Your task to perform on an android device: Go to Amazon Image 0: 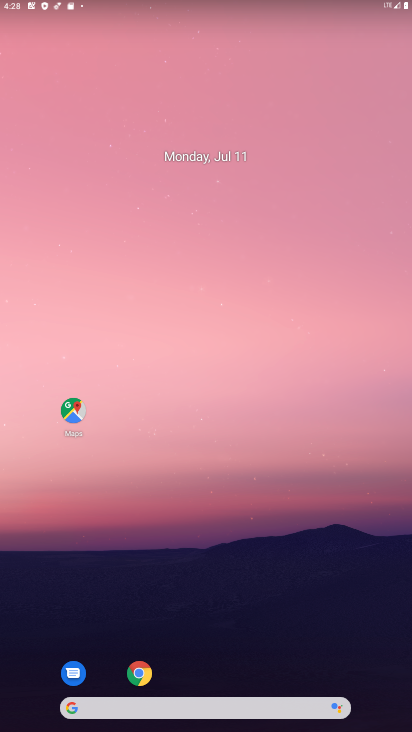
Step 0: drag from (327, 669) to (294, 104)
Your task to perform on an android device: Go to Amazon Image 1: 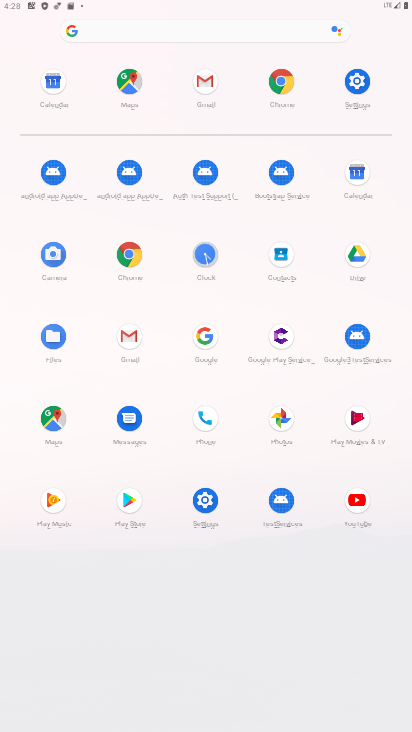
Step 1: click (130, 251)
Your task to perform on an android device: Go to Amazon Image 2: 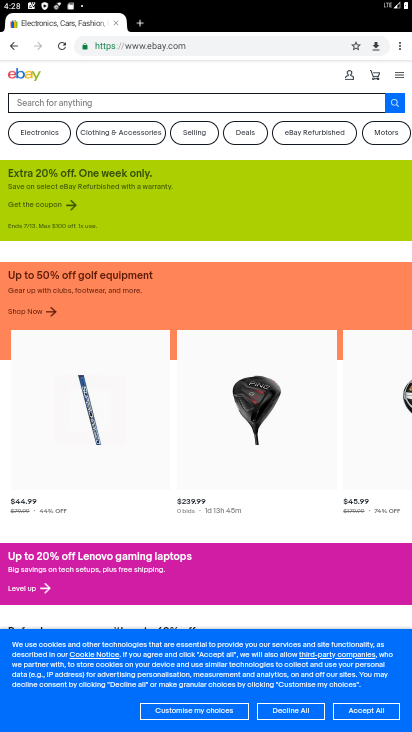
Step 2: click (241, 47)
Your task to perform on an android device: Go to Amazon Image 3: 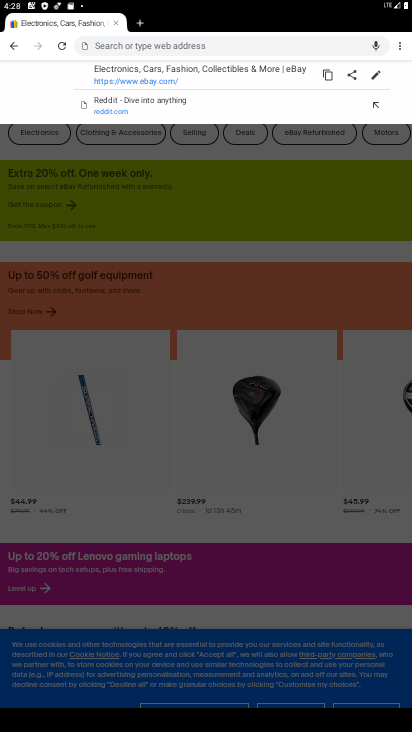
Step 3: type "amazon"
Your task to perform on an android device: Go to Amazon Image 4: 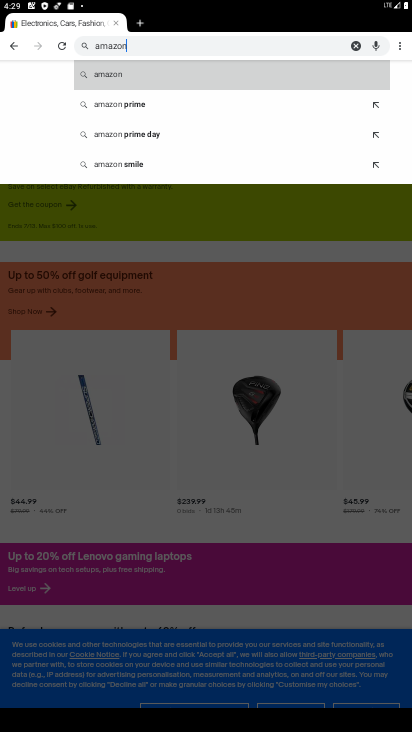
Step 4: click (122, 77)
Your task to perform on an android device: Go to Amazon Image 5: 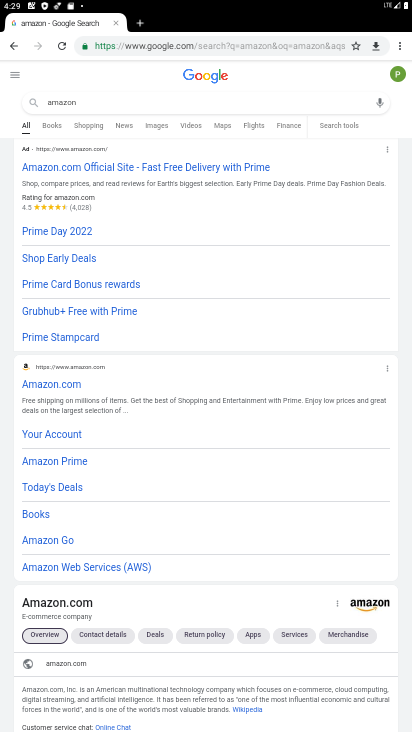
Step 5: drag from (268, 550) to (314, 97)
Your task to perform on an android device: Go to Amazon Image 6: 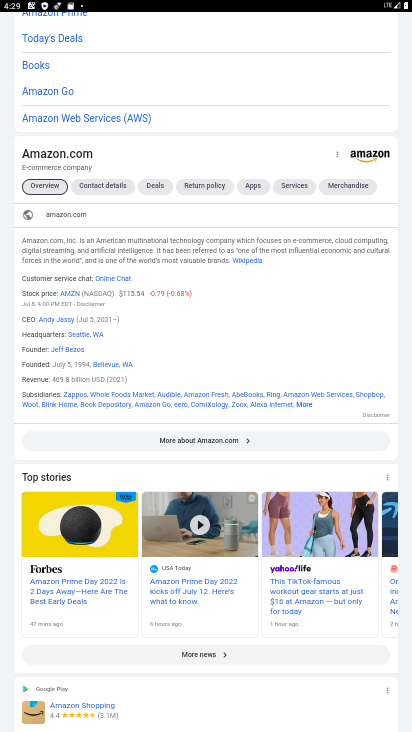
Step 6: drag from (217, 145) to (209, 534)
Your task to perform on an android device: Go to Amazon Image 7: 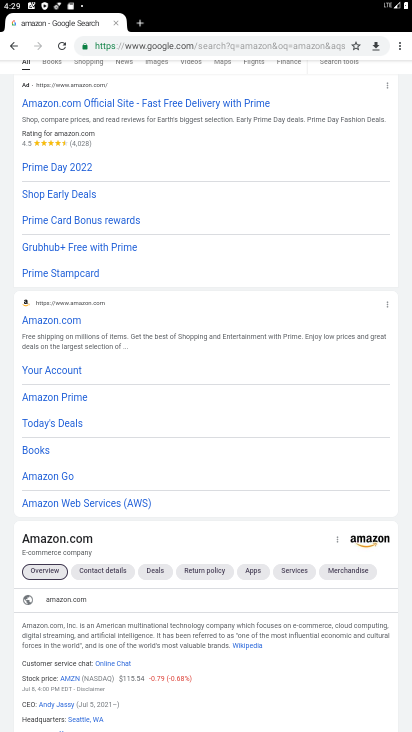
Step 7: click (69, 324)
Your task to perform on an android device: Go to Amazon Image 8: 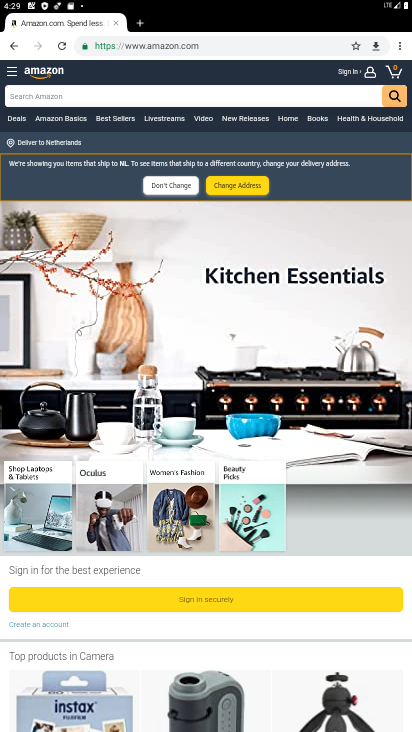
Step 8: task complete